Your task to perform on an android device: visit the assistant section in the google photos Image 0: 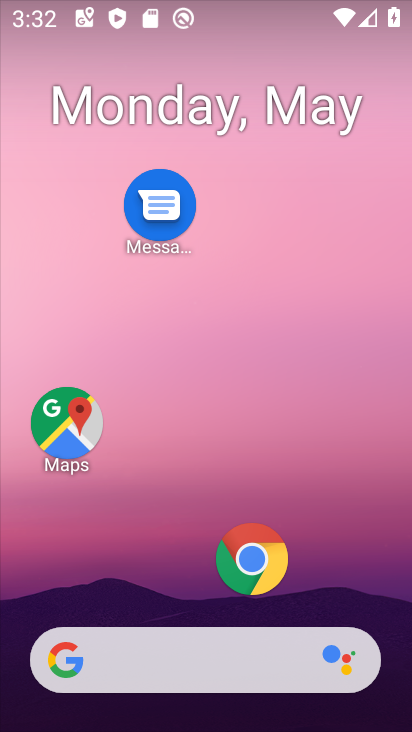
Step 0: drag from (135, 608) to (171, 195)
Your task to perform on an android device: visit the assistant section in the google photos Image 1: 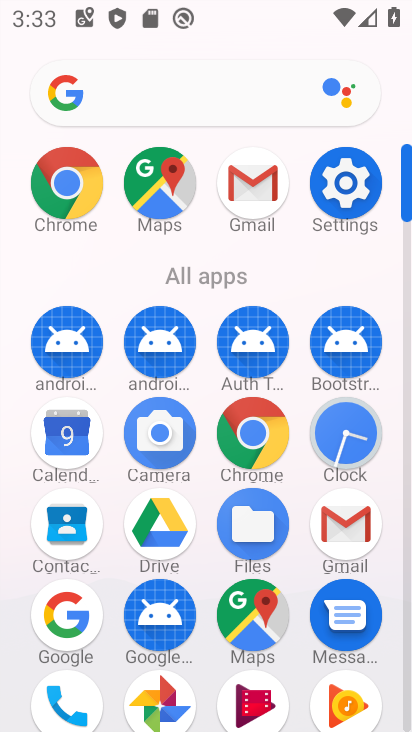
Step 1: click (155, 702)
Your task to perform on an android device: visit the assistant section in the google photos Image 2: 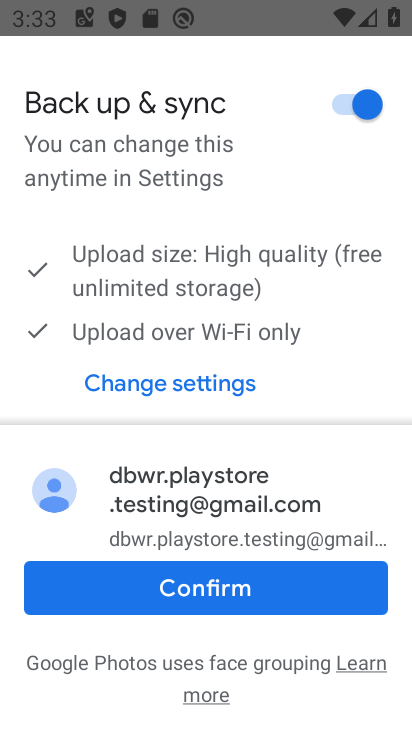
Step 2: click (226, 596)
Your task to perform on an android device: visit the assistant section in the google photos Image 3: 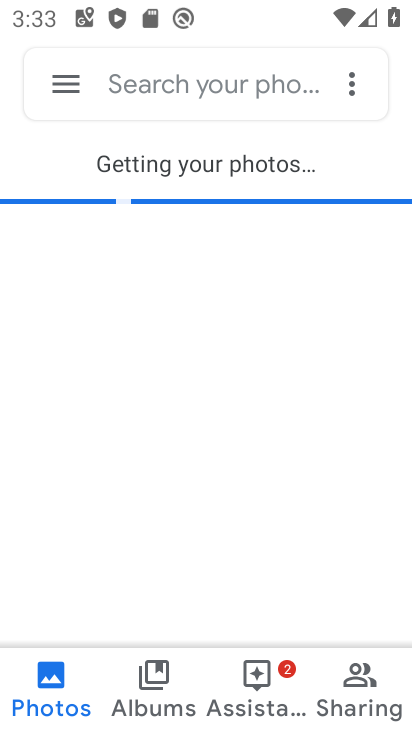
Step 3: click (253, 695)
Your task to perform on an android device: visit the assistant section in the google photos Image 4: 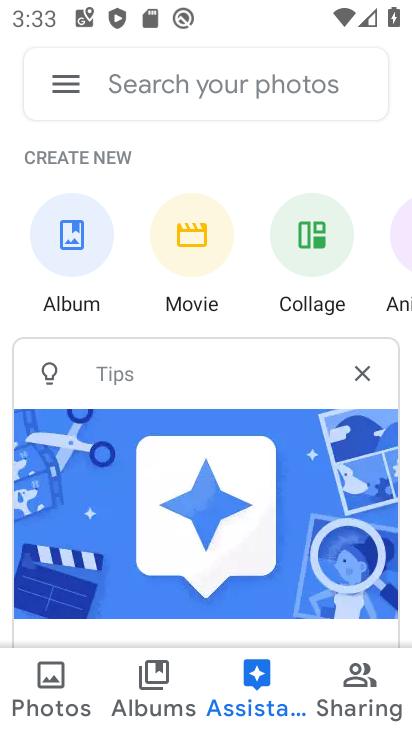
Step 4: task complete